Your task to perform on an android device: Search for razer blackwidow on costco, select the first entry, and add it to the cart. Image 0: 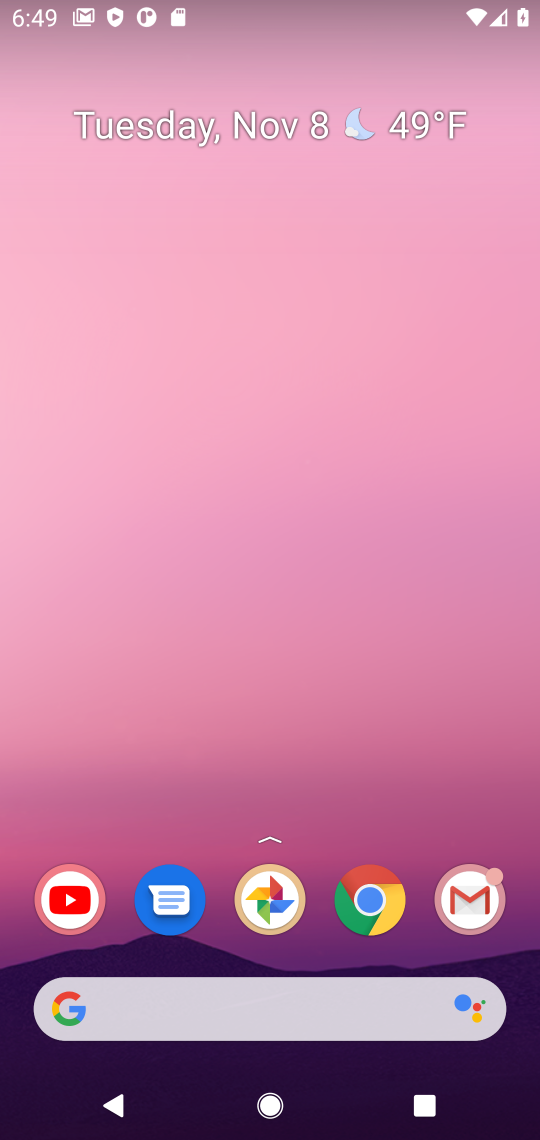
Step 0: click (379, 916)
Your task to perform on an android device: Search for razer blackwidow on costco, select the first entry, and add it to the cart. Image 1: 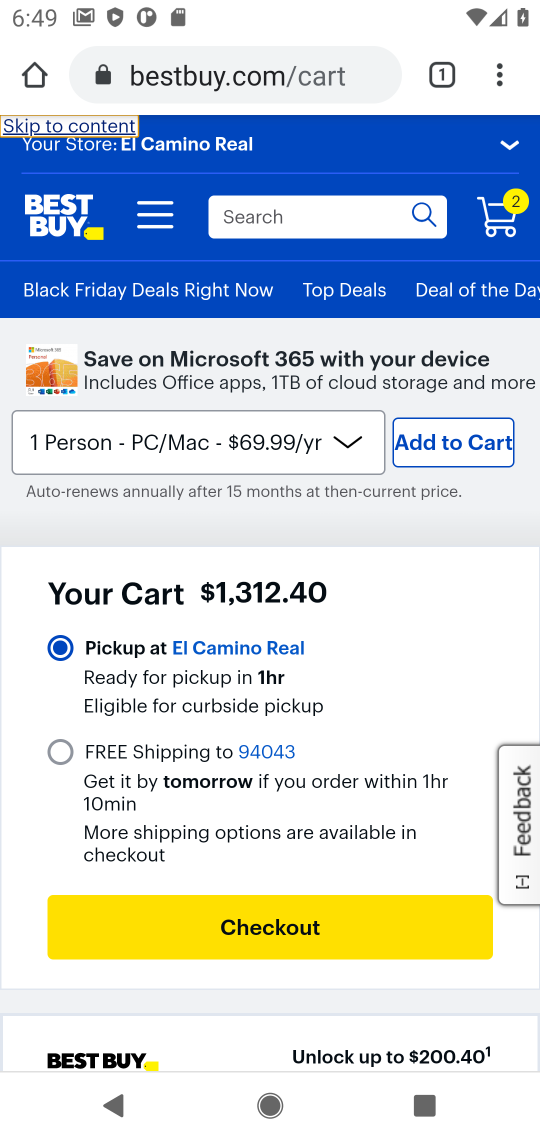
Step 1: click (261, 73)
Your task to perform on an android device: Search for razer blackwidow on costco, select the first entry, and add it to the cart. Image 2: 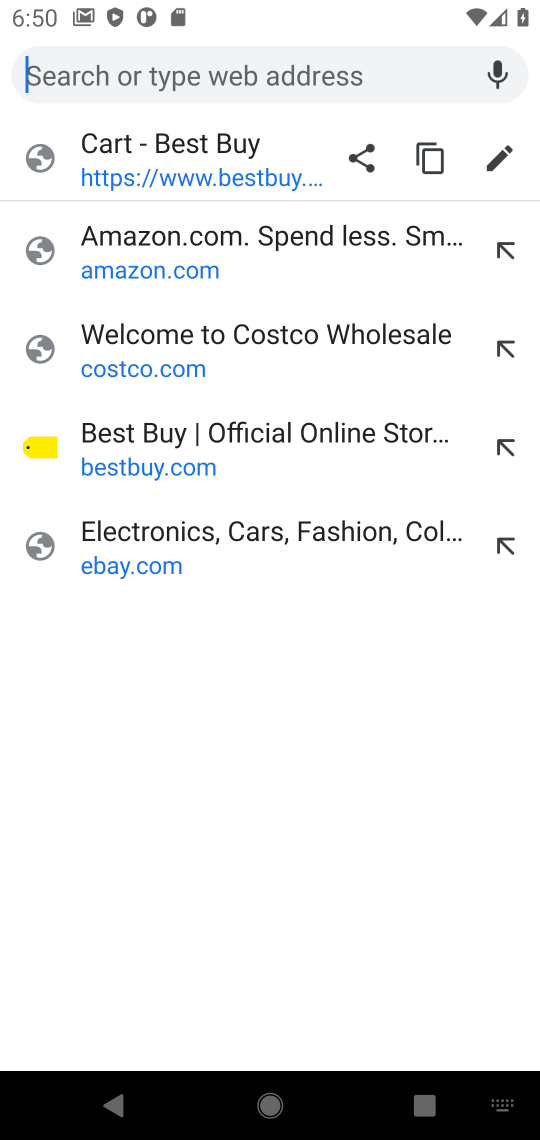
Step 2: type "costco"
Your task to perform on an android device: Search for razer blackwidow on costco, select the first entry, and add it to the cart. Image 3: 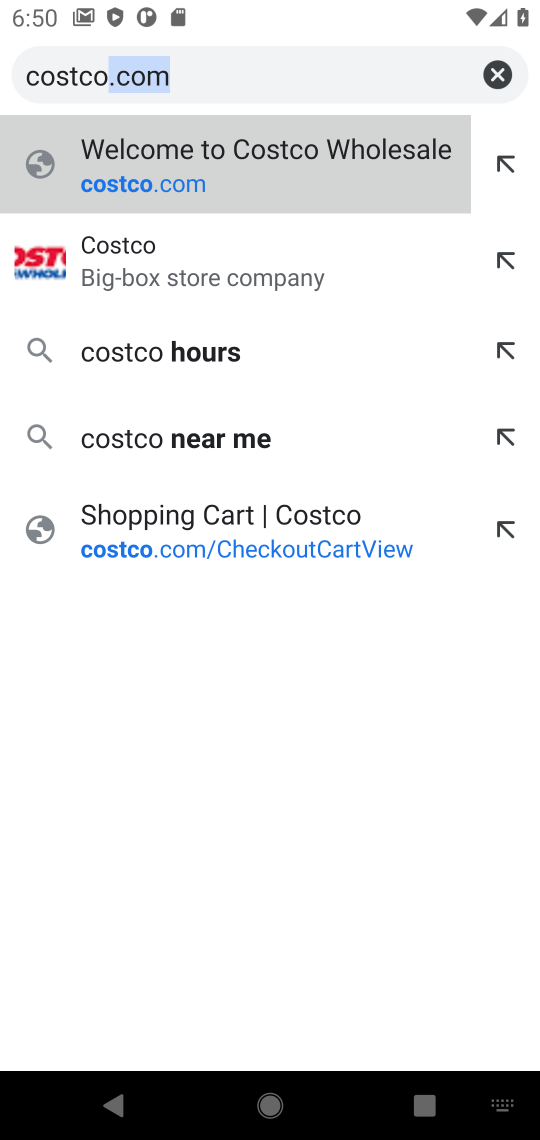
Step 3: press enter
Your task to perform on an android device: Search for razer blackwidow on costco, select the first entry, and add it to the cart. Image 4: 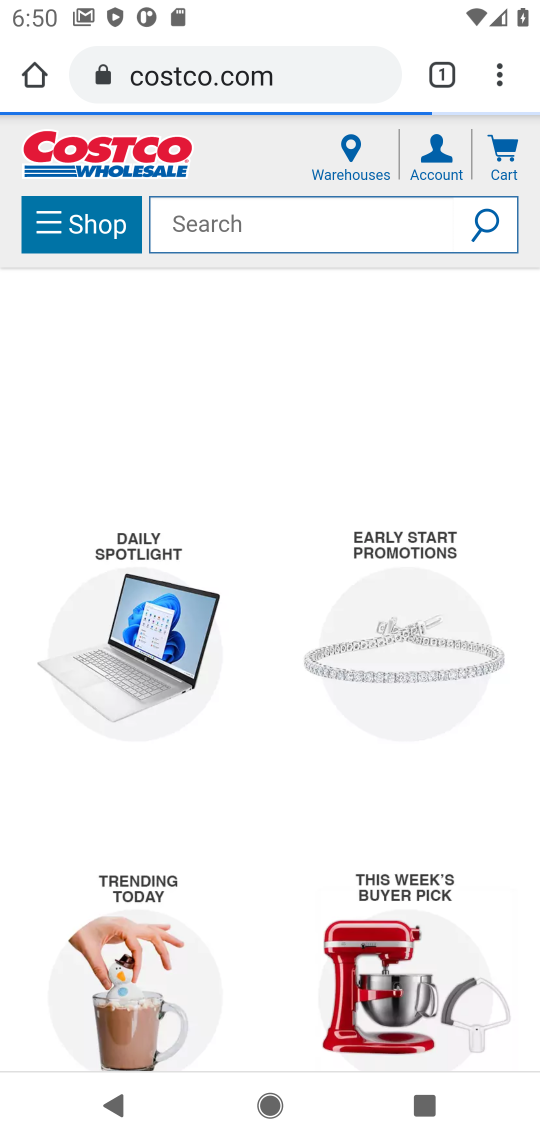
Step 4: press back button
Your task to perform on an android device: Search for razer blackwidow on costco, select the first entry, and add it to the cart. Image 5: 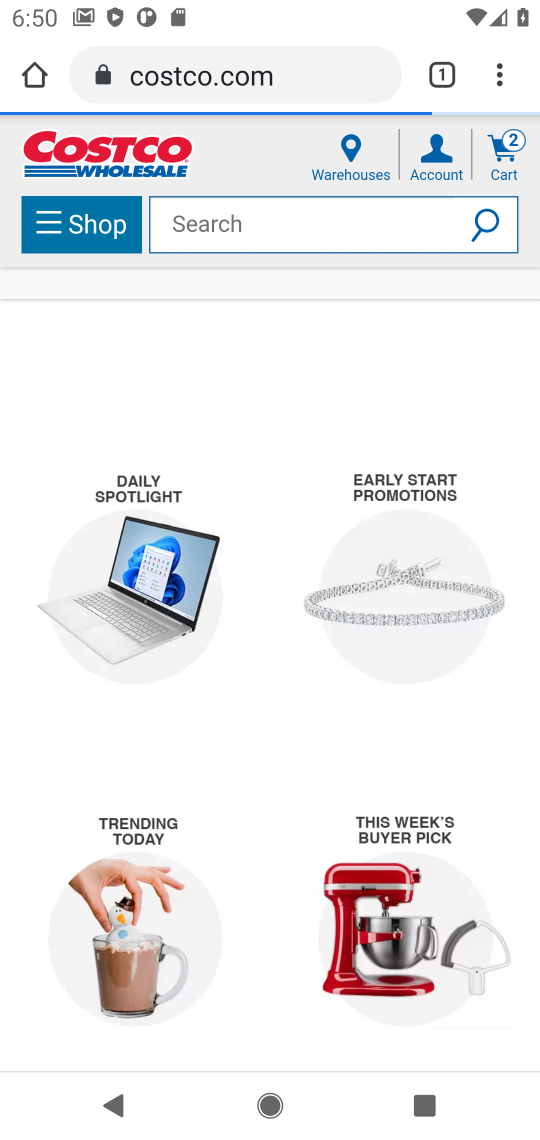
Step 5: click (233, 69)
Your task to perform on an android device: Search for razer blackwidow on costco, select the first entry, and add it to the cart. Image 6: 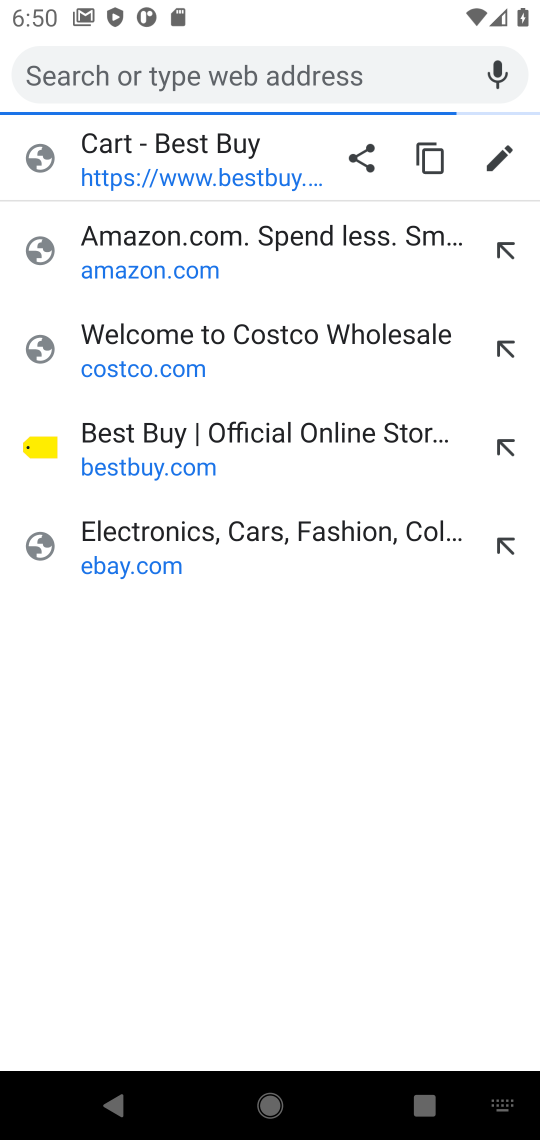
Step 6: press back button
Your task to perform on an android device: Search for razer blackwidow on costco, select the first entry, and add it to the cart. Image 7: 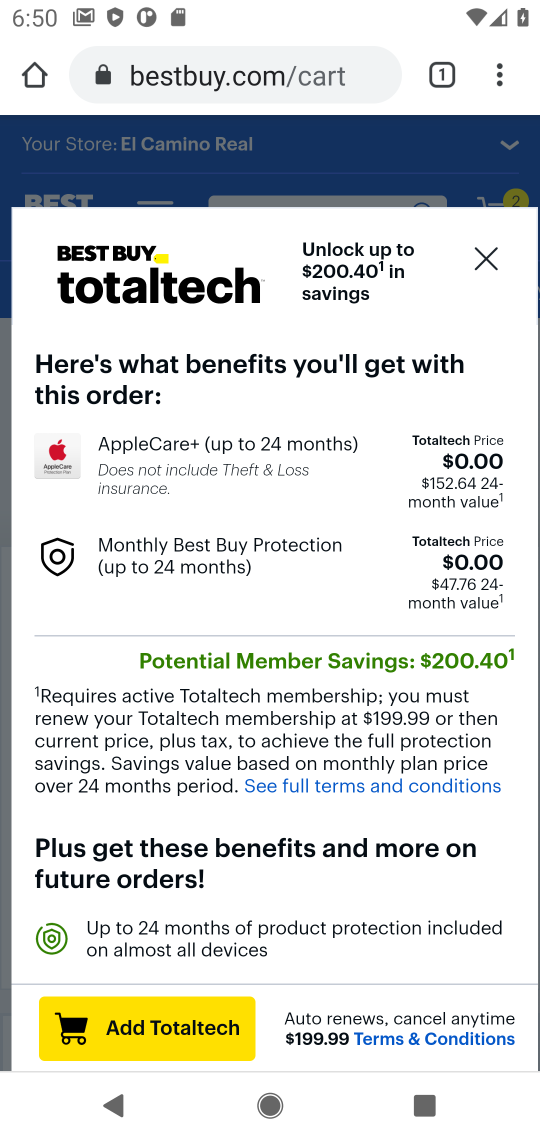
Step 7: click (262, 70)
Your task to perform on an android device: Search for razer blackwidow on costco, select the first entry, and add it to the cart. Image 8: 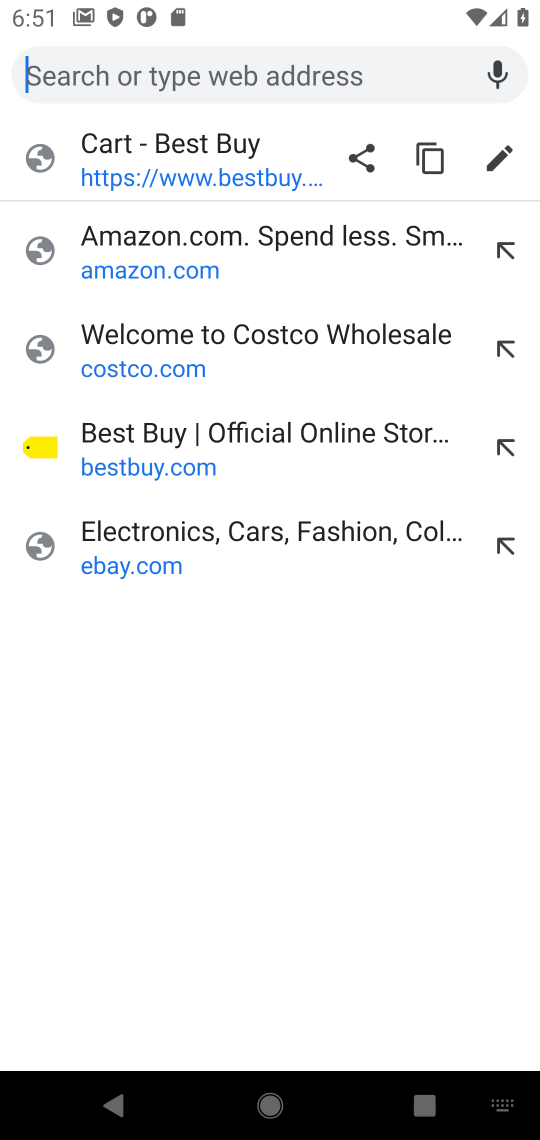
Step 8: type "costco"
Your task to perform on an android device: Search for razer blackwidow on costco, select the first entry, and add it to the cart. Image 9: 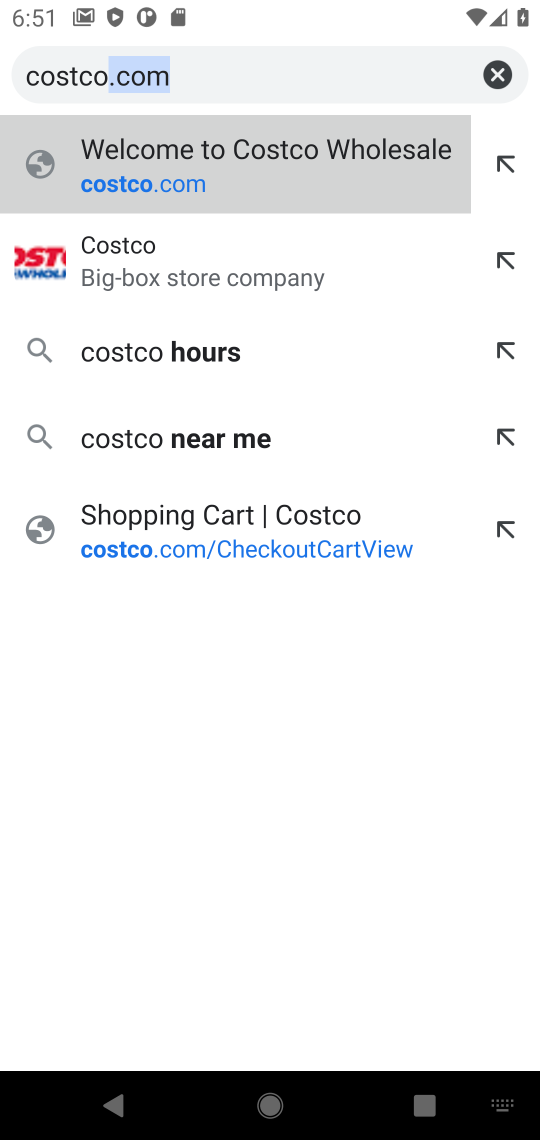
Step 9: type ""
Your task to perform on an android device: Search for razer blackwidow on costco, select the first entry, and add it to the cart. Image 10: 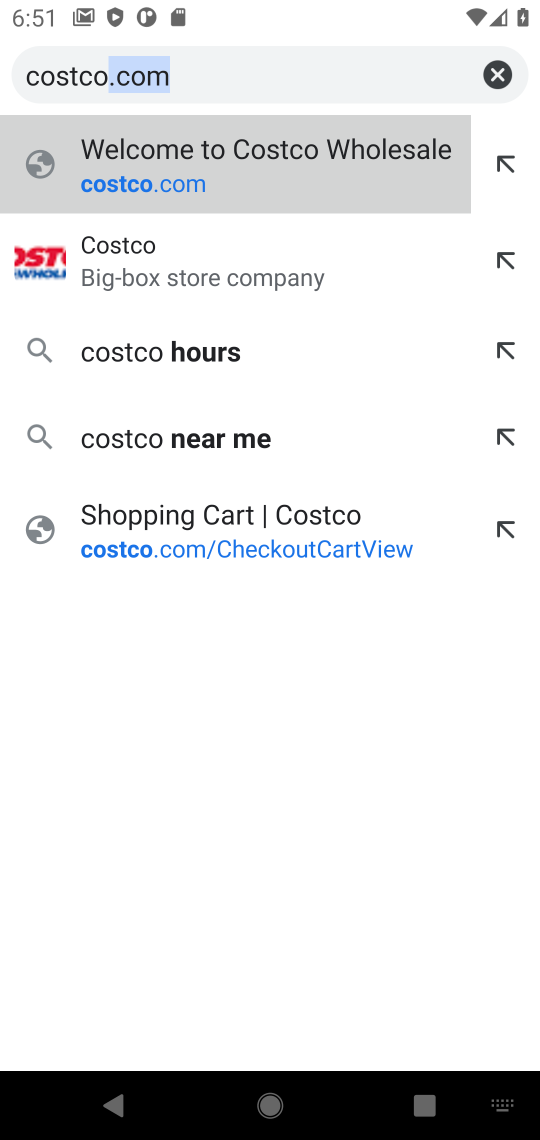
Step 10: press enter
Your task to perform on an android device: Search for razer blackwidow on costco, select the first entry, and add it to the cart. Image 11: 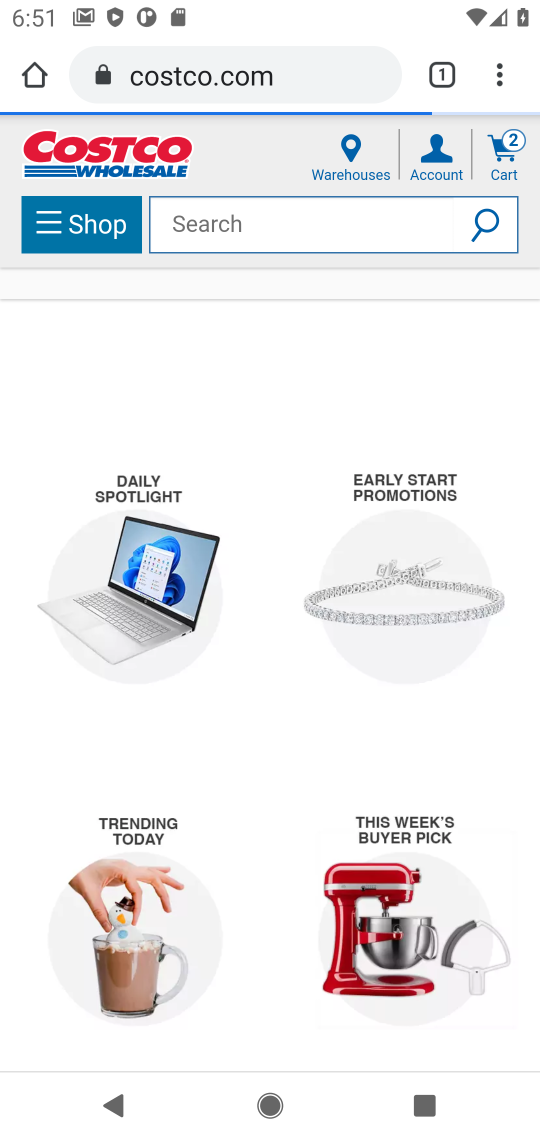
Step 11: click (305, 226)
Your task to perform on an android device: Search for razer blackwidow on costco, select the first entry, and add it to the cart. Image 12: 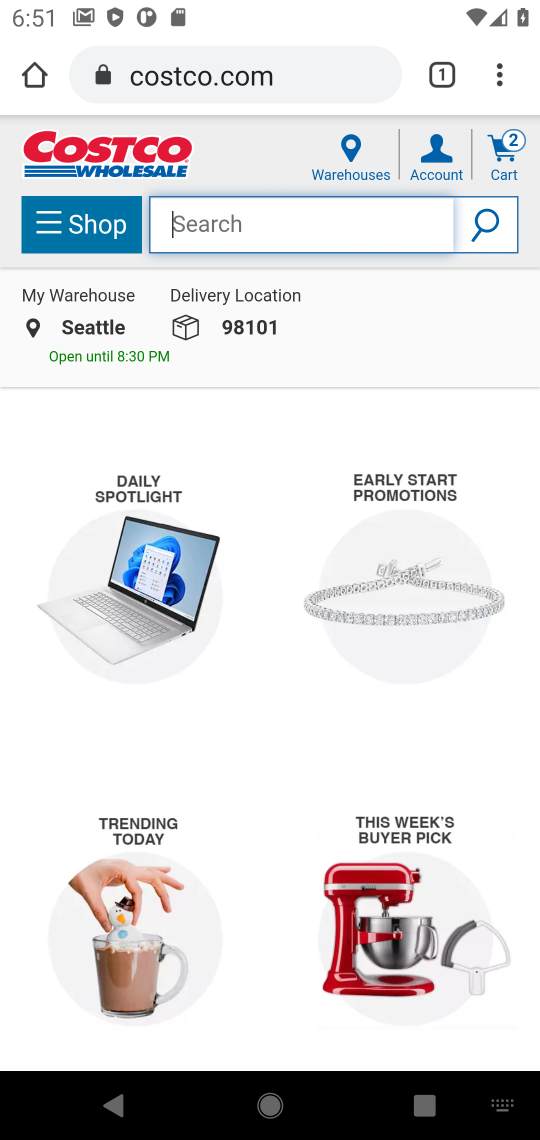
Step 12: type "razer blackwidow"
Your task to perform on an android device: Search for razer blackwidow on costco, select the first entry, and add it to the cart. Image 13: 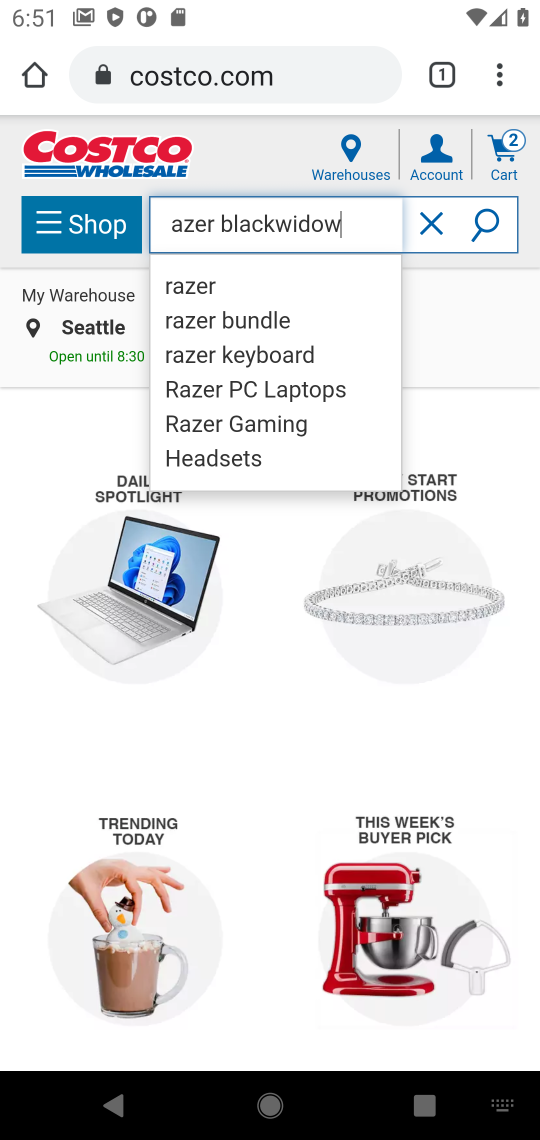
Step 13: press enter
Your task to perform on an android device: Search for razer blackwidow on costco, select the first entry, and add it to the cart. Image 14: 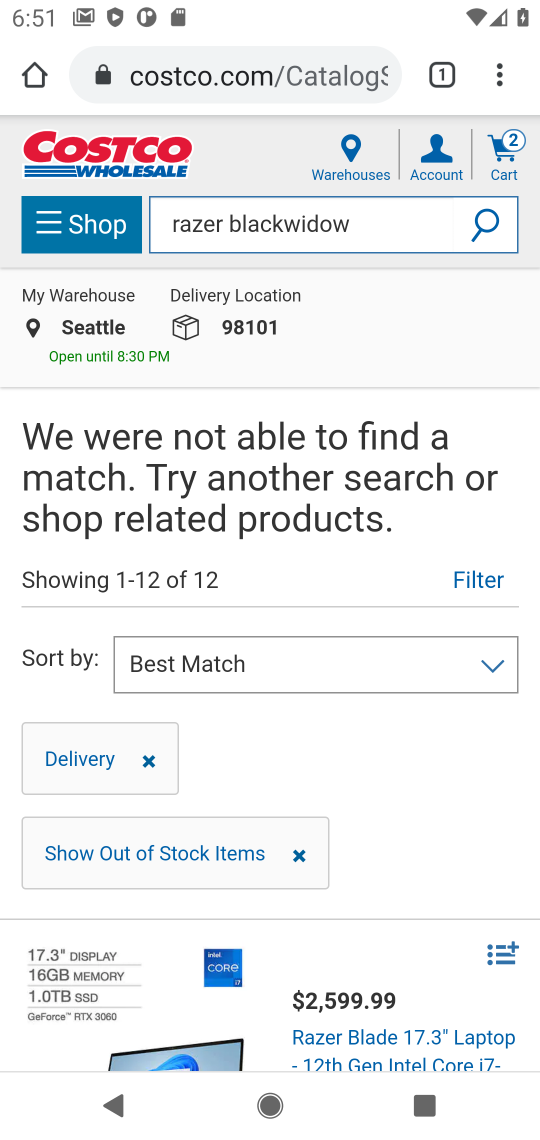
Step 14: task complete